Your task to perform on an android device: Open battery settings Image 0: 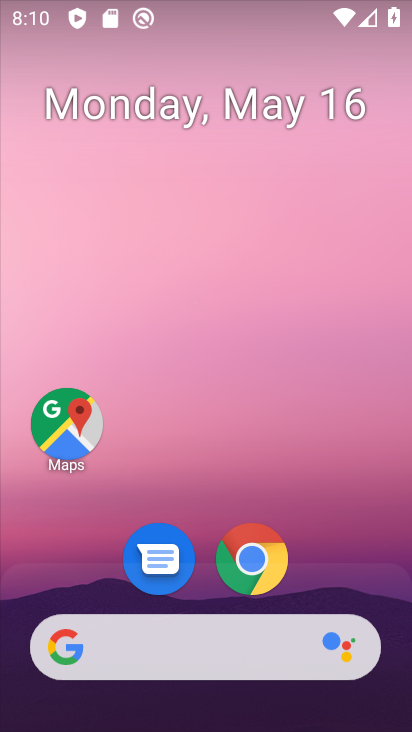
Step 0: drag from (342, 594) to (354, 225)
Your task to perform on an android device: Open battery settings Image 1: 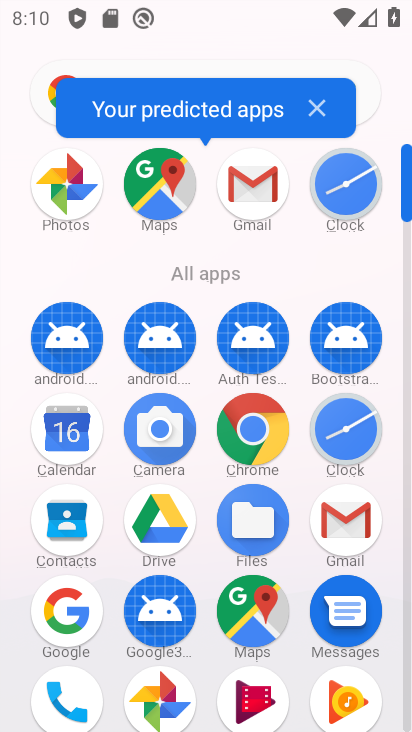
Step 1: drag from (194, 661) to (282, 228)
Your task to perform on an android device: Open battery settings Image 2: 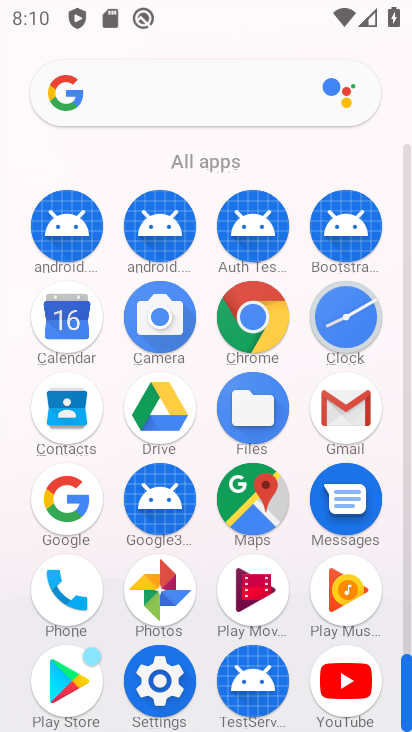
Step 2: click (167, 686)
Your task to perform on an android device: Open battery settings Image 3: 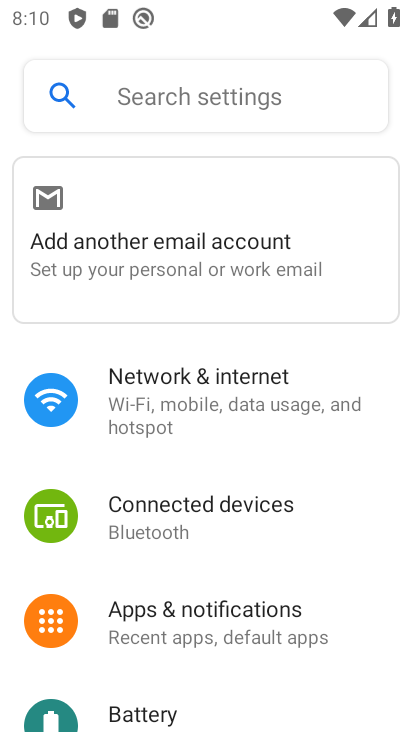
Step 3: drag from (223, 687) to (293, 238)
Your task to perform on an android device: Open battery settings Image 4: 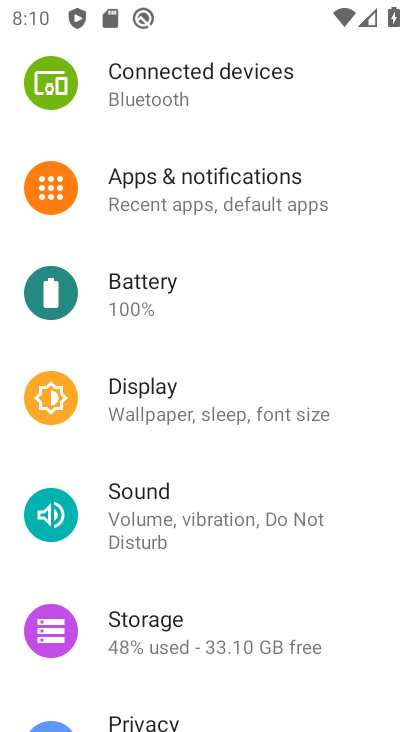
Step 4: click (206, 303)
Your task to perform on an android device: Open battery settings Image 5: 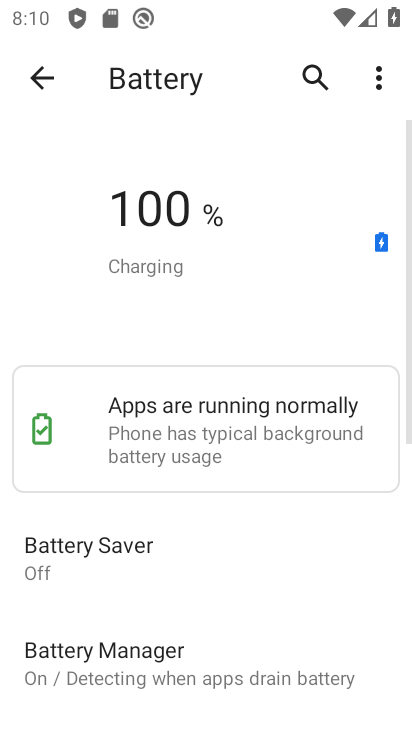
Step 5: task complete